Your task to perform on an android device: Open Android settings Image 0: 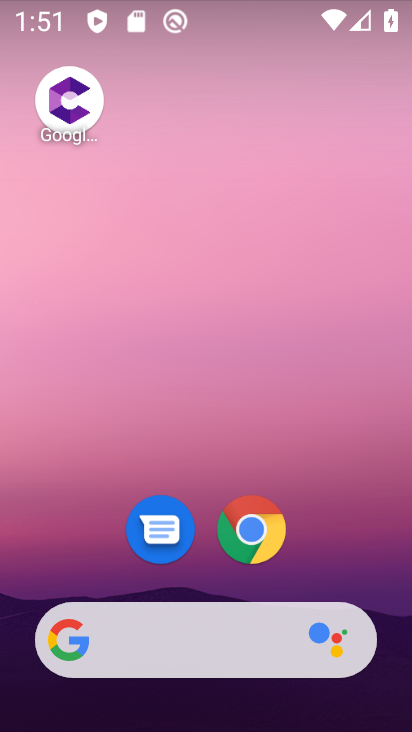
Step 0: drag from (352, 569) to (331, 197)
Your task to perform on an android device: Open Android settings Image 1: 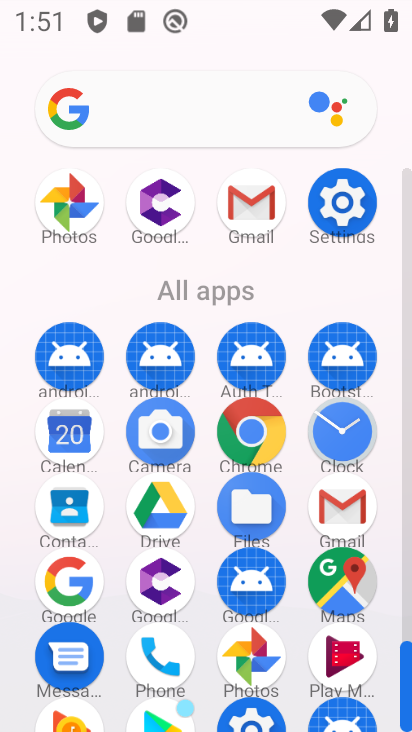
Step 1: click (349, 228)
Your task to perform on an android device: Open Android settings Image 2: 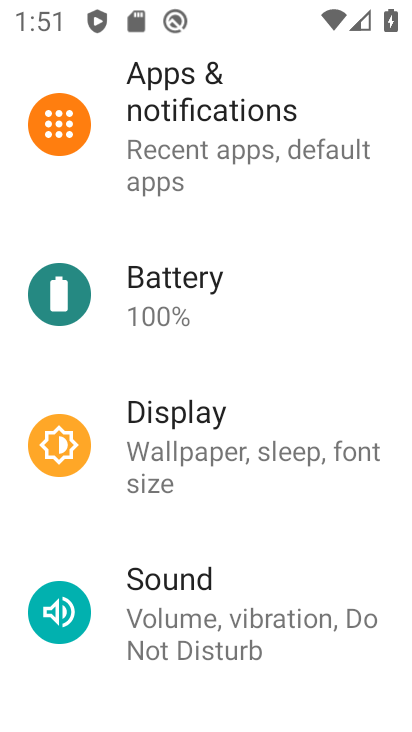
Step 2: task complete